Your task to perform on an android device: turn off priority inbox in the gmail app Image 0: 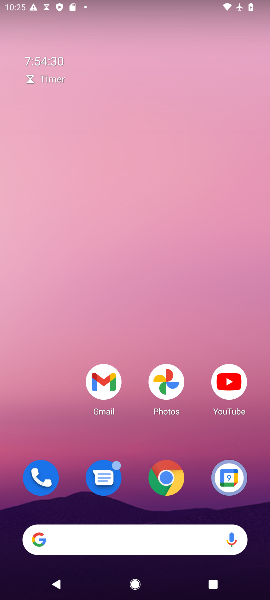
Step 0: drag from (202, 452) to (169, 93)
Your task to perform on an android device: turn off priority inbox in the gmail app Image 1: 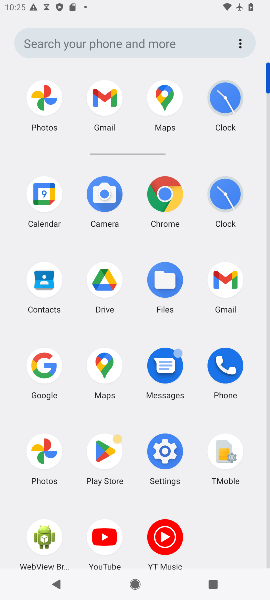
Step 1: click (108, 97)
Your task to perform on an android device: turn off priority inbox in the gmail app Image 2: 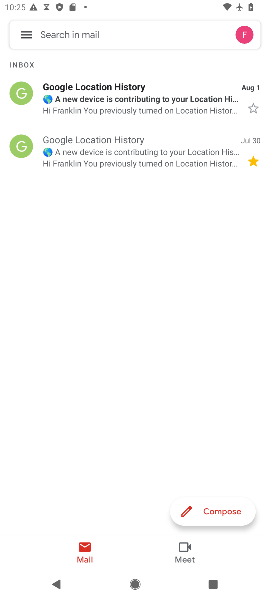
Step 2: click (34, 38)
Your task to perform on an android device: turn off priority inbox in the gmail app Image 3: 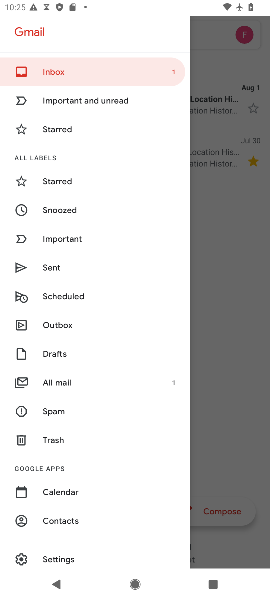
Step 3: click (84, 554)
Your task to perform on an android device: turn off priority inbox in the gmail app Image 4: 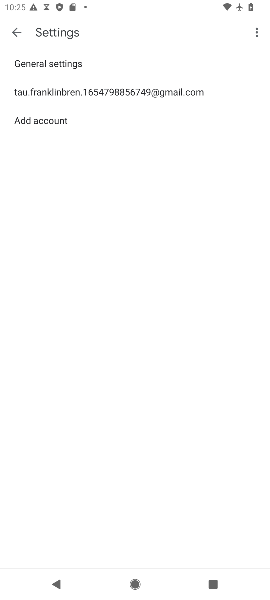
Step 4: click (121, 102)
Your task to perform on an android device: turn off priority inbox in the gmail app Image 5: 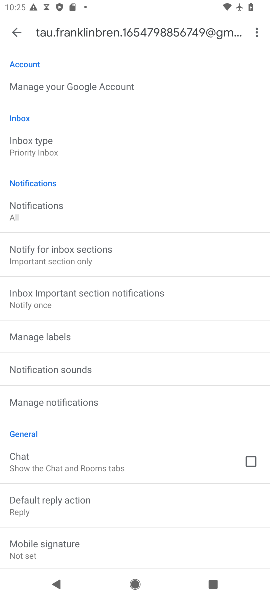
Step 5: drag from (163, 558) to (143, 218)
Your task to perform on an android device: turn off priority inbox in the gmail app Image 6: 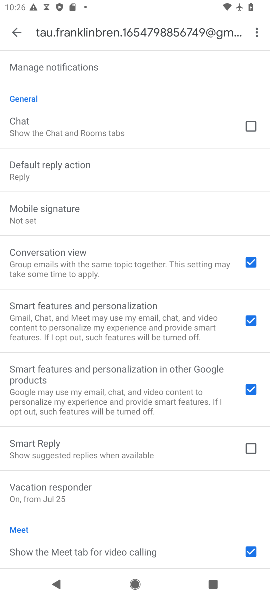
Step 6: drag from (120, 91) to (123, 575)
Your task to perform on an android device: turn off priority inbox in the gmail app Image 7: 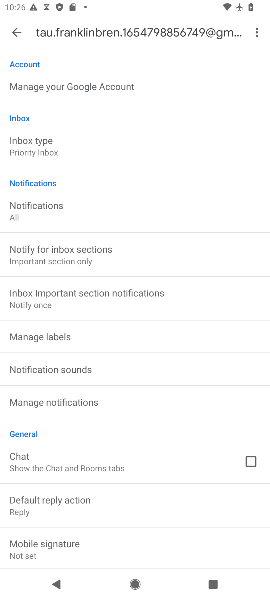
Step 7: click (63, 148)
Your task to perform on an android device: turn off priority inbox in the gmail app Image 8: 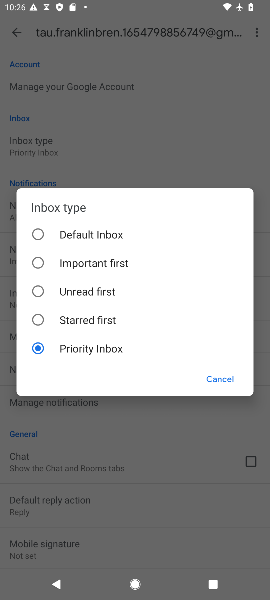
Step 8: click (96, 237)
Your task to perform on an android device: turn off priority inbox in the gmail app Image 9: 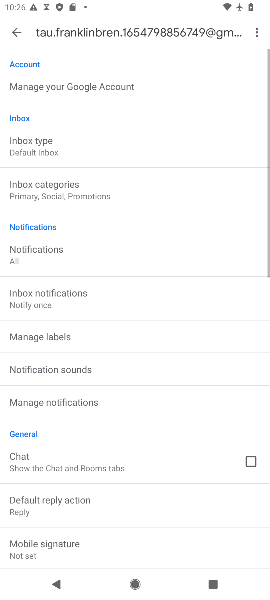
Step 9: task complete